Your task to perform on an android device: Open the Play Movies app and select the watchlist tab. Image 0: 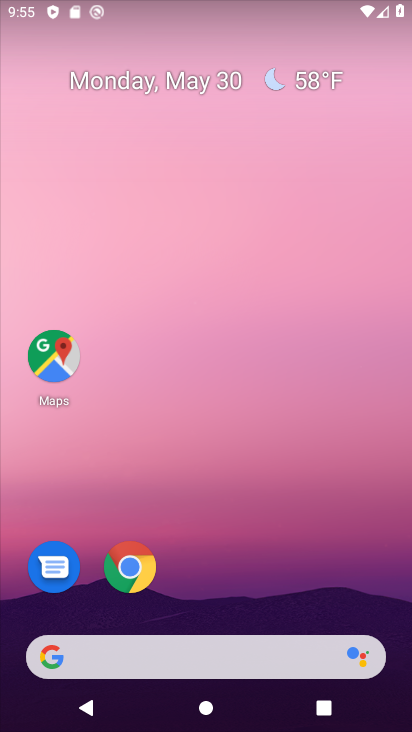
Step 0: drag from (218, 600) to (273, 181)
Your task to perform on an android device: Open the Play Movies app and select the watchlist tab. Image 1: 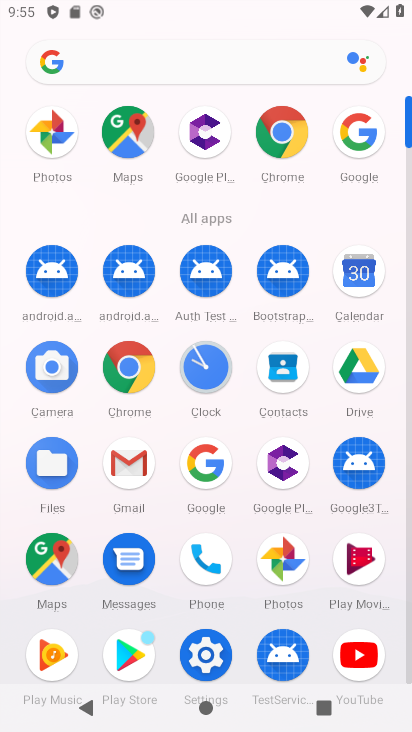
Step 1: click (350, 569)
Your task to perform on an android device: Open the Play Movies app and select the watchlist tab. Image 2: 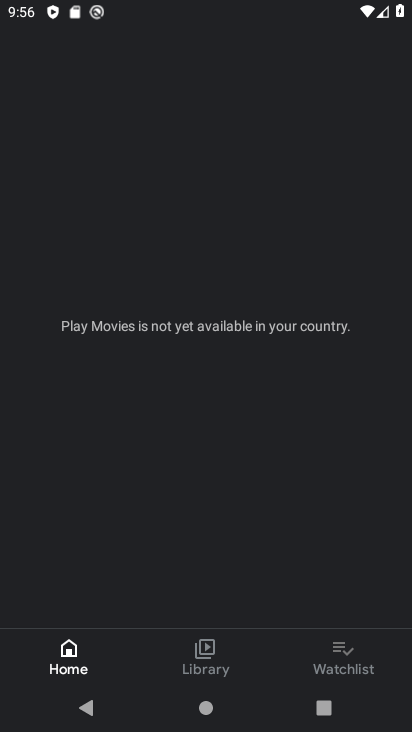
Step 2: click (359, 661)
Your task to perform on an android device: Open the Play Movies app and select the watchlist tab. Image 3: 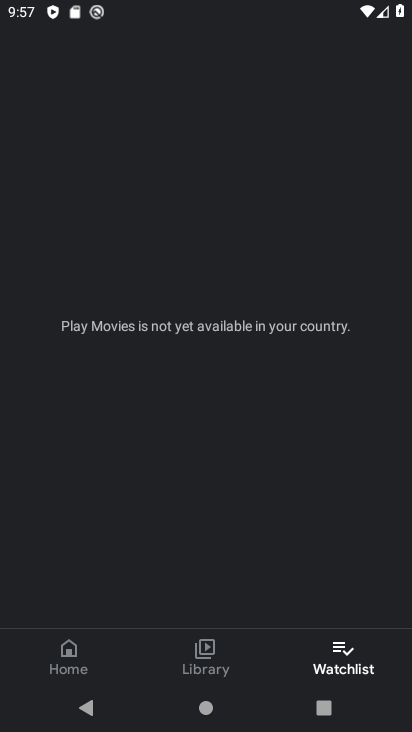
Step 3: task complete